Your task to perform on an android device: Open Google Maps Image 0: 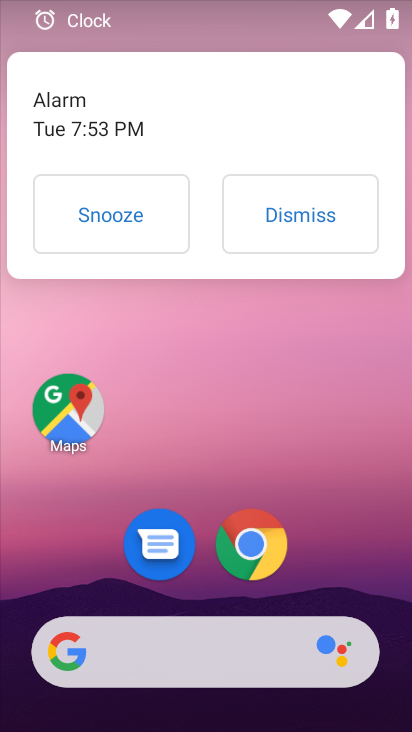
Step 0: click (62, 422)
Your task to perform on an android device: Open Google Maps Image 1: 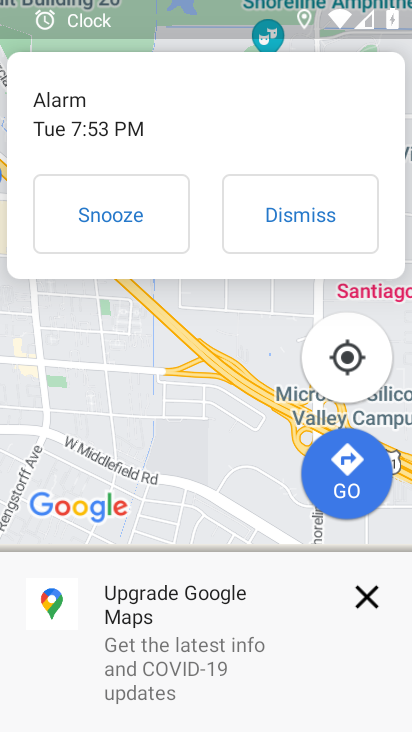
Step 1: task complete